Your task to perform on an android device: turn off airplane mode Image 0: 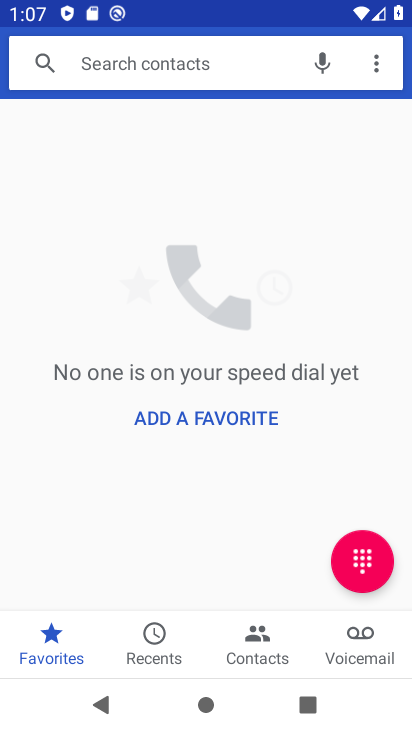
Step 0: press home button
Your task to perform on an android device: turn off airplane mode Image 1: 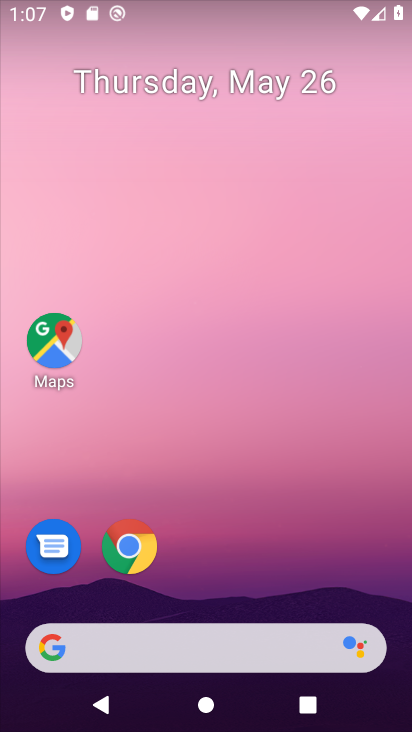
Step 1: drag from (270, 638) to (256, 47)
Your task to perform on an android device: turn off airplane mode Image 2: 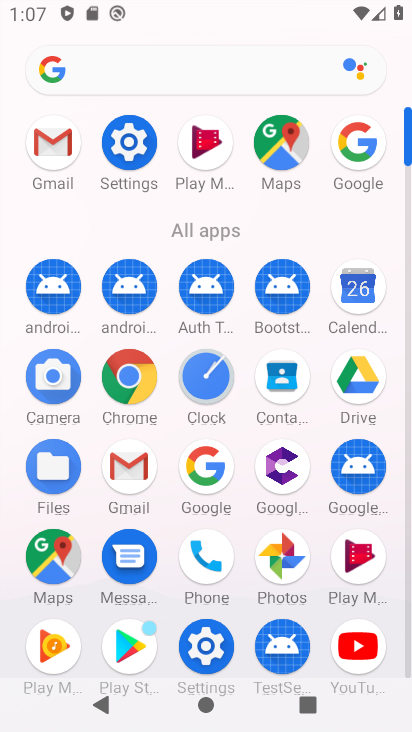
Step 2: click (105, 163)
Your task to perform on an android device: turn off airplane mode Image 3: 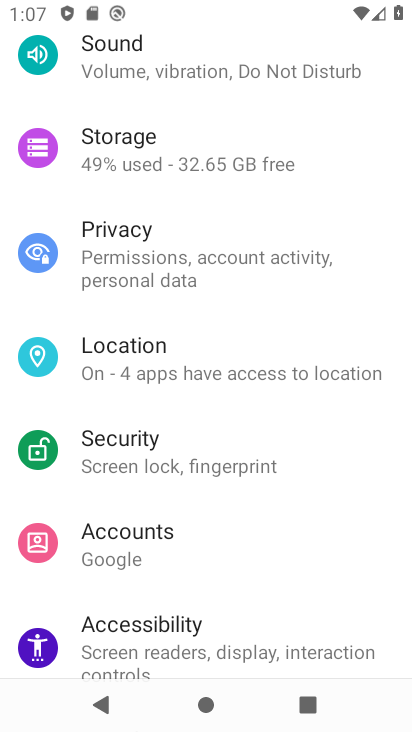
Step 3: drag from (133, 143) to (180, 665)
Your task to perform on an android device: turn off airplane mode Image 4: 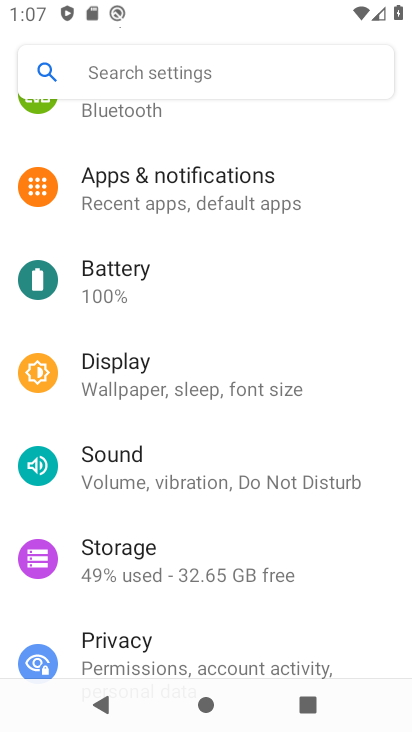
Step 4: drag from (125, 101) to (185, 608)
Your task to perform on an android device: turn off airplane mode Image 5: 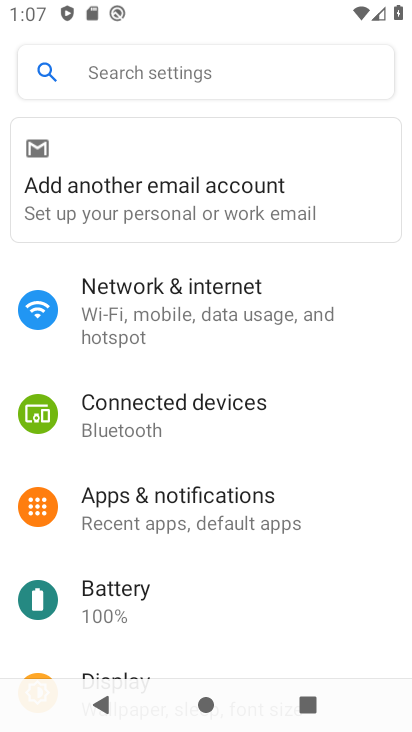
Step 5: click (196, 325)
Your task to perform on an android device: turn off airplane mode Image 6: 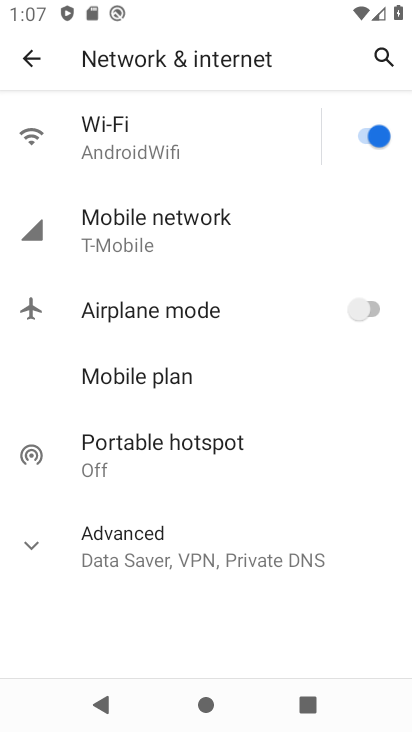
Step 6: task complete